Your task to perform on an android device: What's the weather? Image 0: 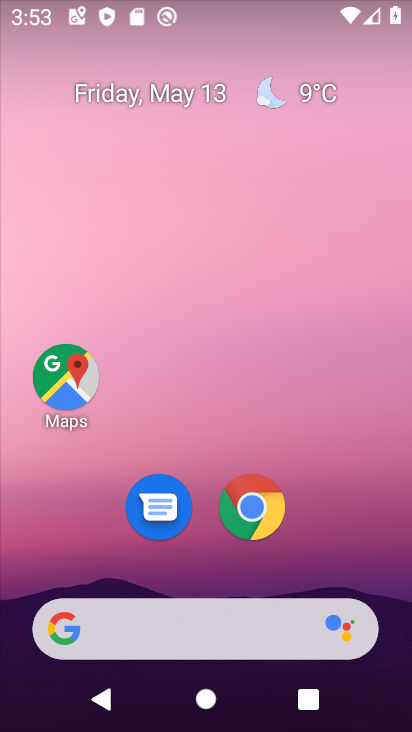
Step 0: click (331, 104)
Your task to perform on an android device: What's the weather? Image 1: 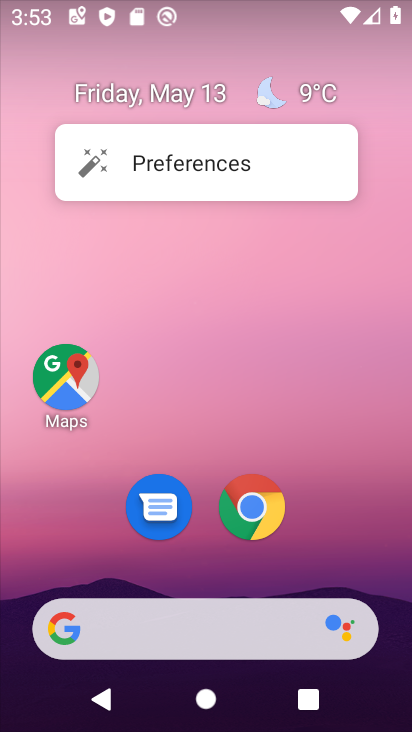
Step 1: click (331, 103)
Your task to perform on an android device: What's the weather? Image 2: 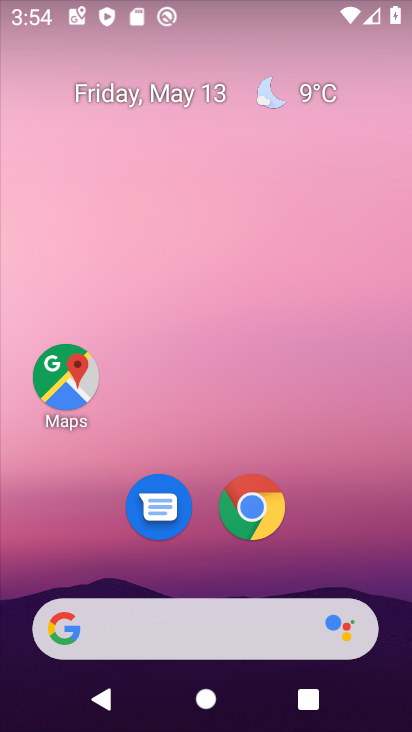
Step 2: click (331, 102)
Your task to perform on an android device: What's the weather? Image 3: 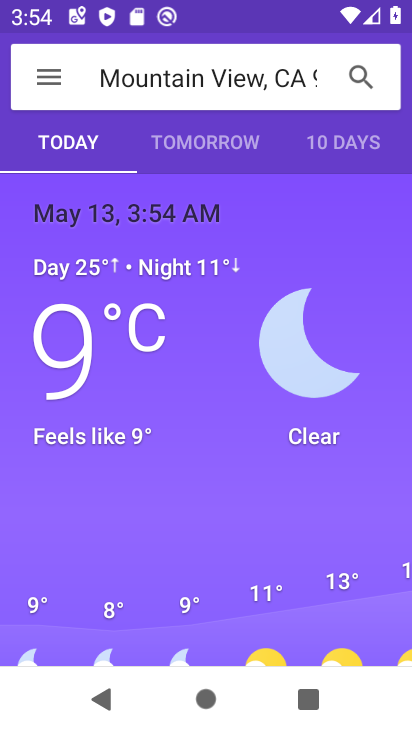
Step 3: task complete